Your task to perform on an android device: manage bookmarks in the chrome app Image 0: 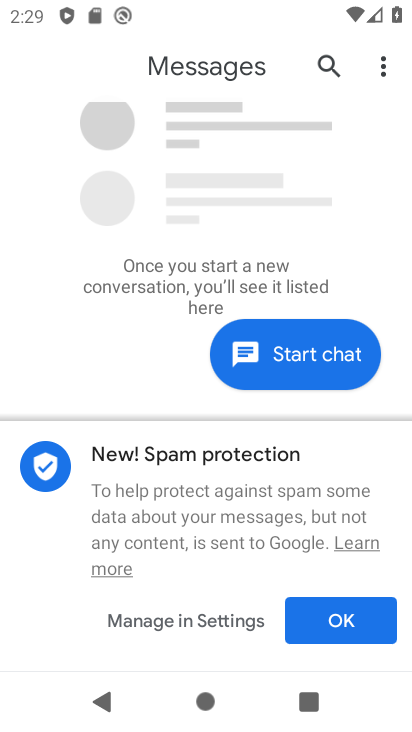
Step 0: press home button
Your task to perform on an android device: manage bookmarks in the chrome app Image 1: 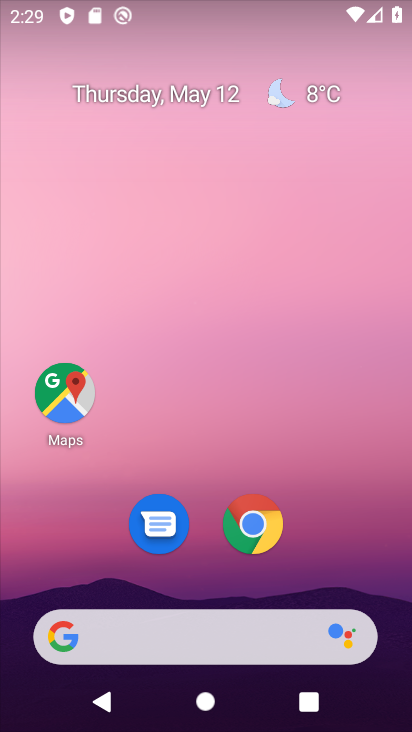
Step 1: click (253, 516)
Your task to perform on an android device: manage bookmarks in the chrome app Image 2: 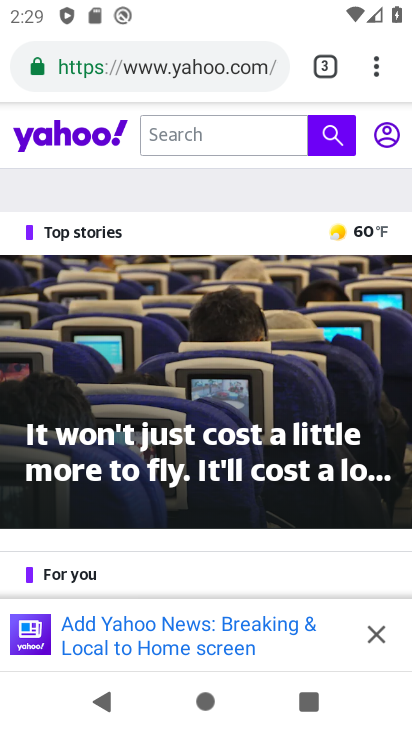
Step 2: click (377, 71)
Your task to perform on an android device: manage bookmarks in the chrome app Image 3: 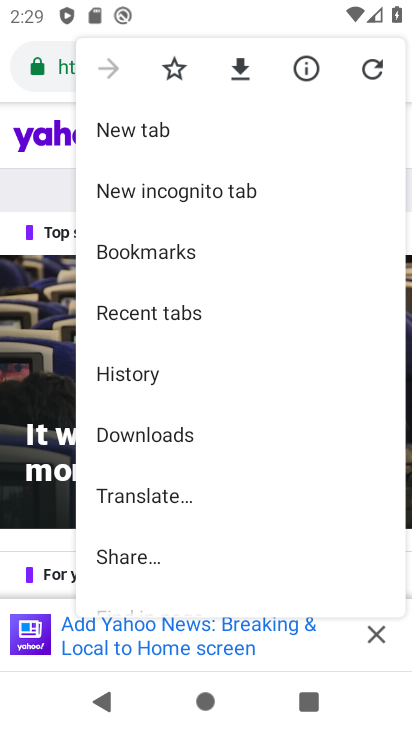
Step 3: click (160, 251)
Your task to perform on an android device: manage bookmarks in the chrome app Image 4: 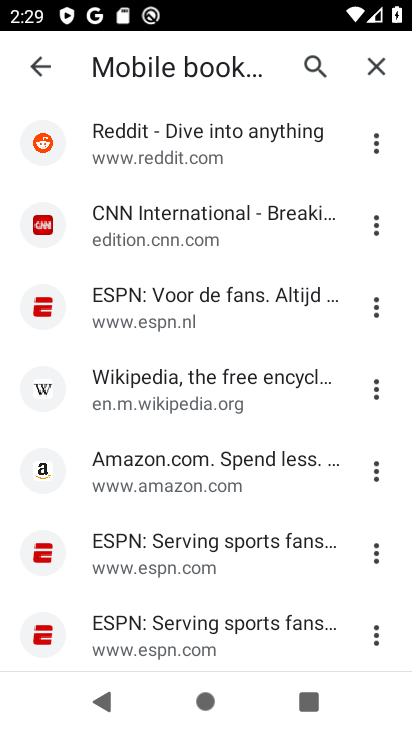
Step 4: click (372, 309)
Your task to perform on an android device: manage bookmarks in the chrome app Image 5: 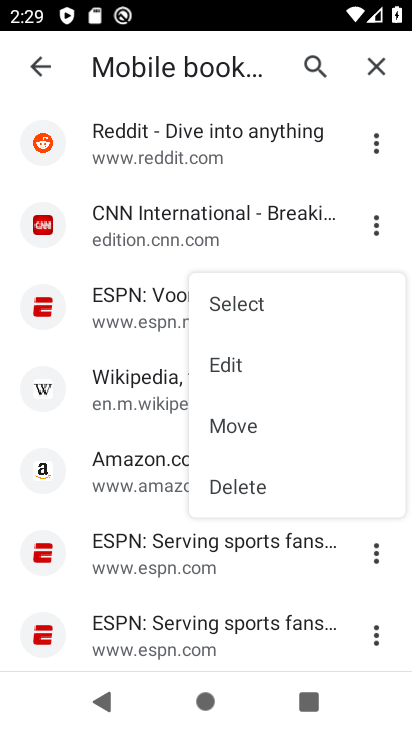
Step 5: click (268, 365)
Your task to perform on an android device: manage bookmarks in the chrome app Image 6: 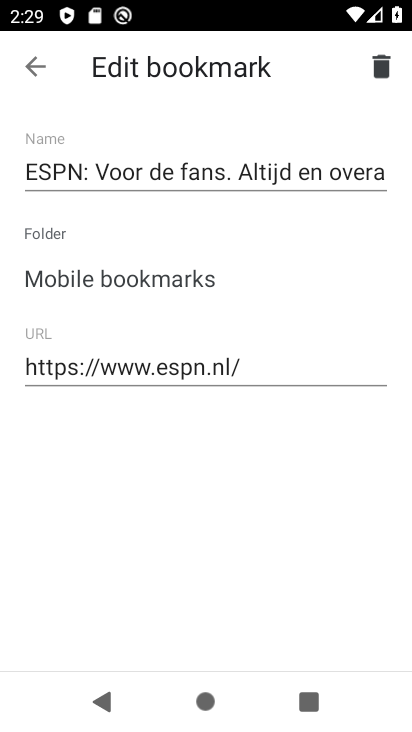
Step 6: click (35, 60)
Your task to perform on an android device: manage bookmarks in the chrome app Image 7: 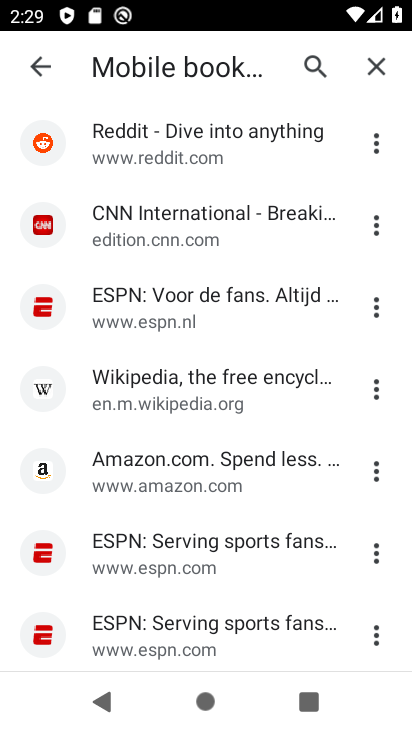
Step 7: task complete